Your task to perform on an android device: Open settings on Google Maps Image 0: 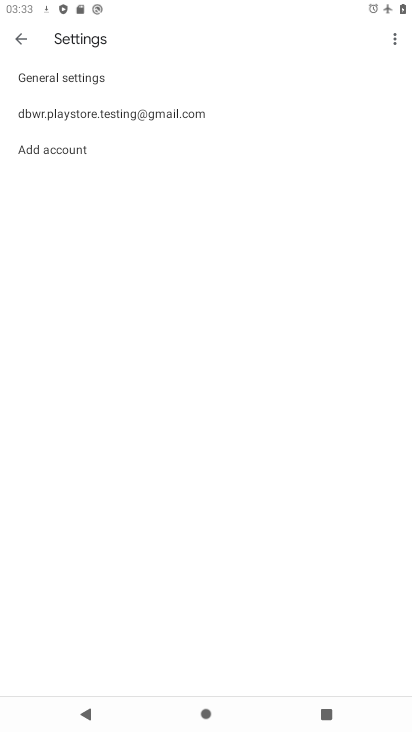
Step 0: press home button
Your task to perform on an android device: Open settings on Google Maps Image 1: 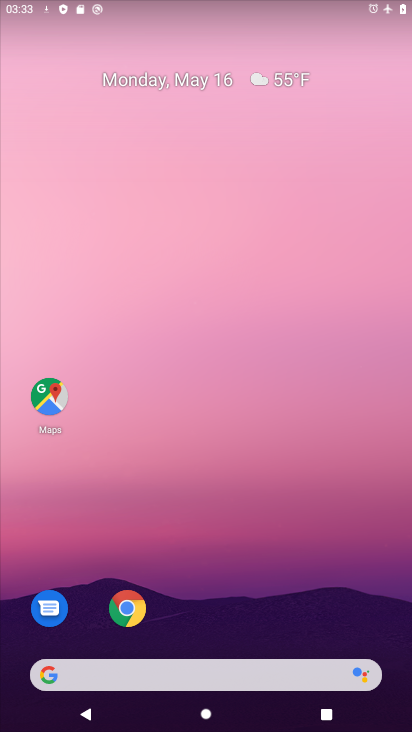
Step 1: click (37, 394)
Your task to perform on an android device: Open settings on Google Maps Image 2: 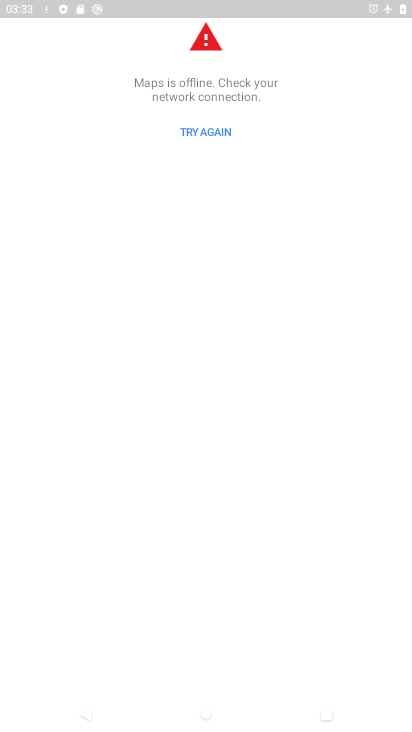
Step 2: click (199, 138)
Your task to perform on an android device: Open settings on Google Maps Image 3: 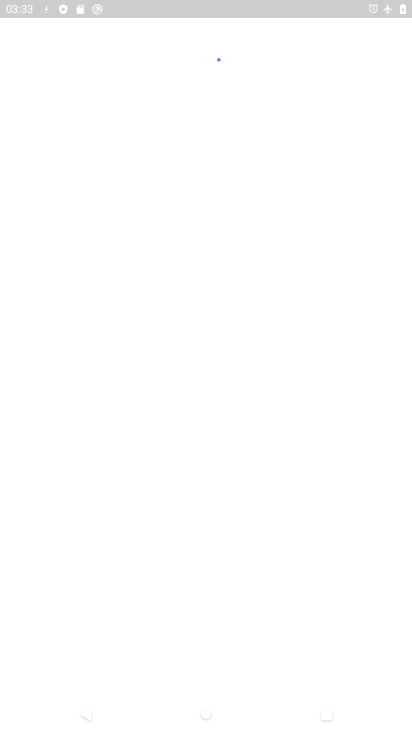
Step 3: task complete